Your task to perform on an android device: turn off data saver in the chrome app Image 0: 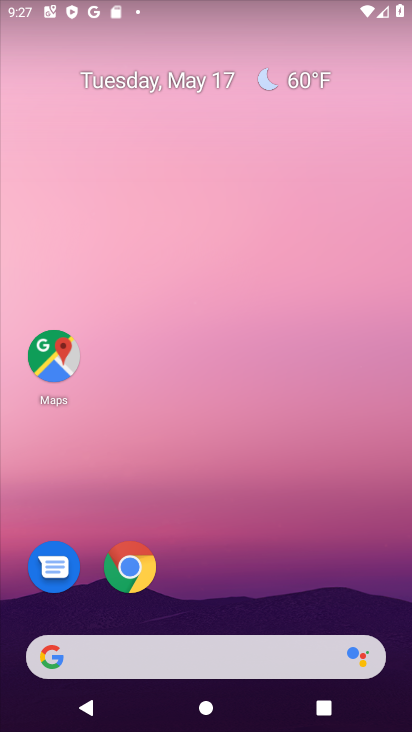
Step 0: drag from (400, 597) to (287, 42)
Your task to perform on an android device: turn off data saver in the chrome app Image 1: 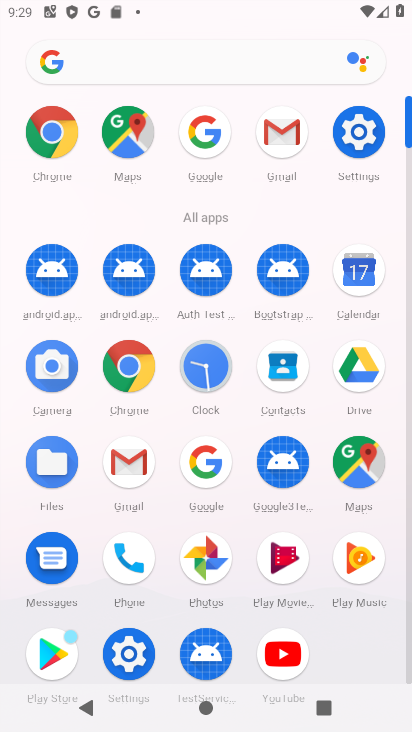
Step 1: click (126, 352)
Your task to perform on an android device: turn off data saver in the chrome app Image 2: 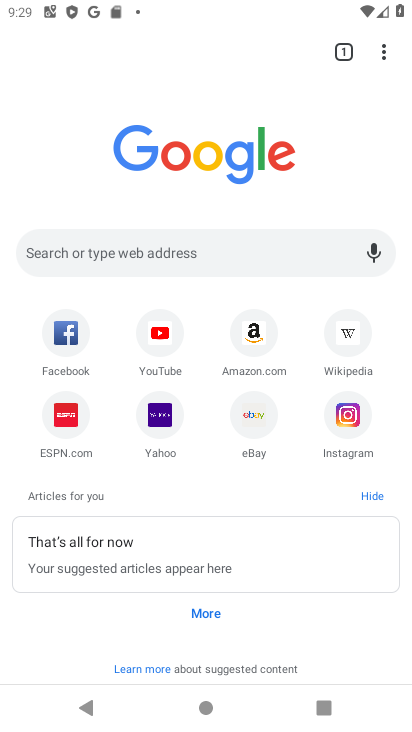
Step 2: click (385, 44)
Your task to perform on an android device: turn off data saver in the chrome app Image 3: 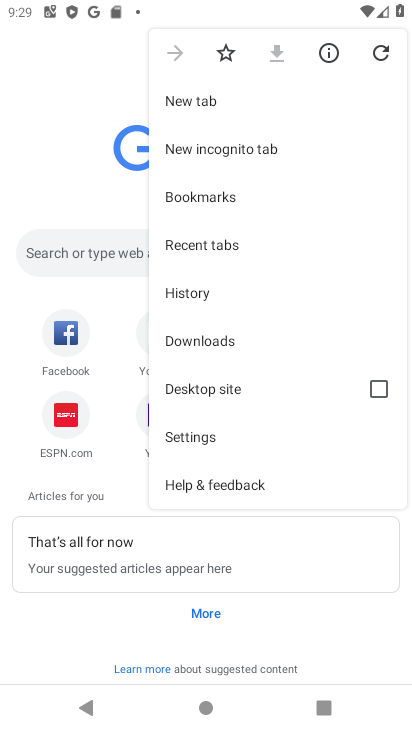
Step 3: click (208, 447)
Your task to perform on an android device: turn off data saver in the chrome app Image 4: 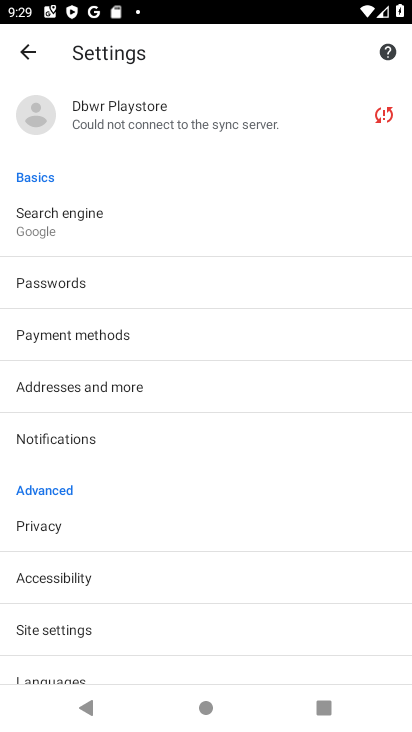
Step 4: drag from (111, 623) to (148, 371)
Your task to perform on an android device: turn off data saver in the chrome app Image 5: 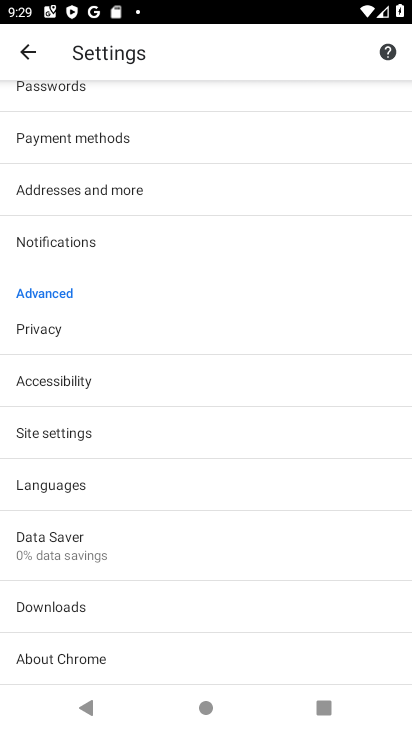
Step 5: click (74, 554)
Your task to perform on an android device: turn off data saver in the chrome app Image 6: 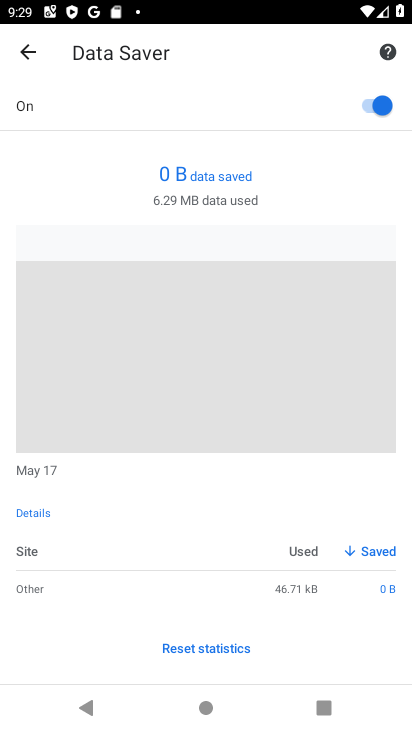
Step 6: click (379, 104)
Your task to perform on an android device: turn off data saver in the chrome app Image 7: 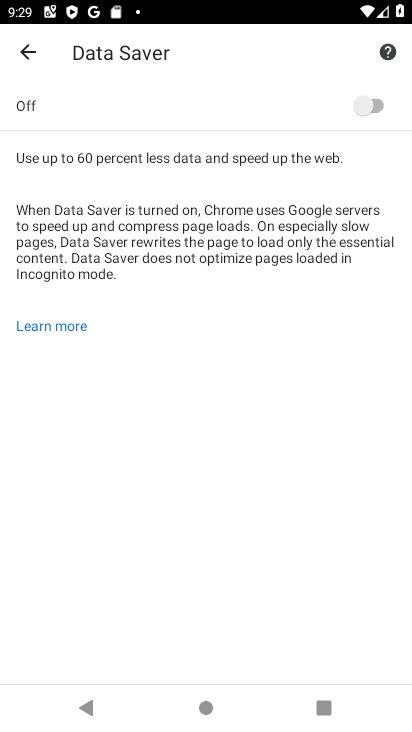
Step 7: task complete